Your task to perform on an android device: Open battery settings Image 0: 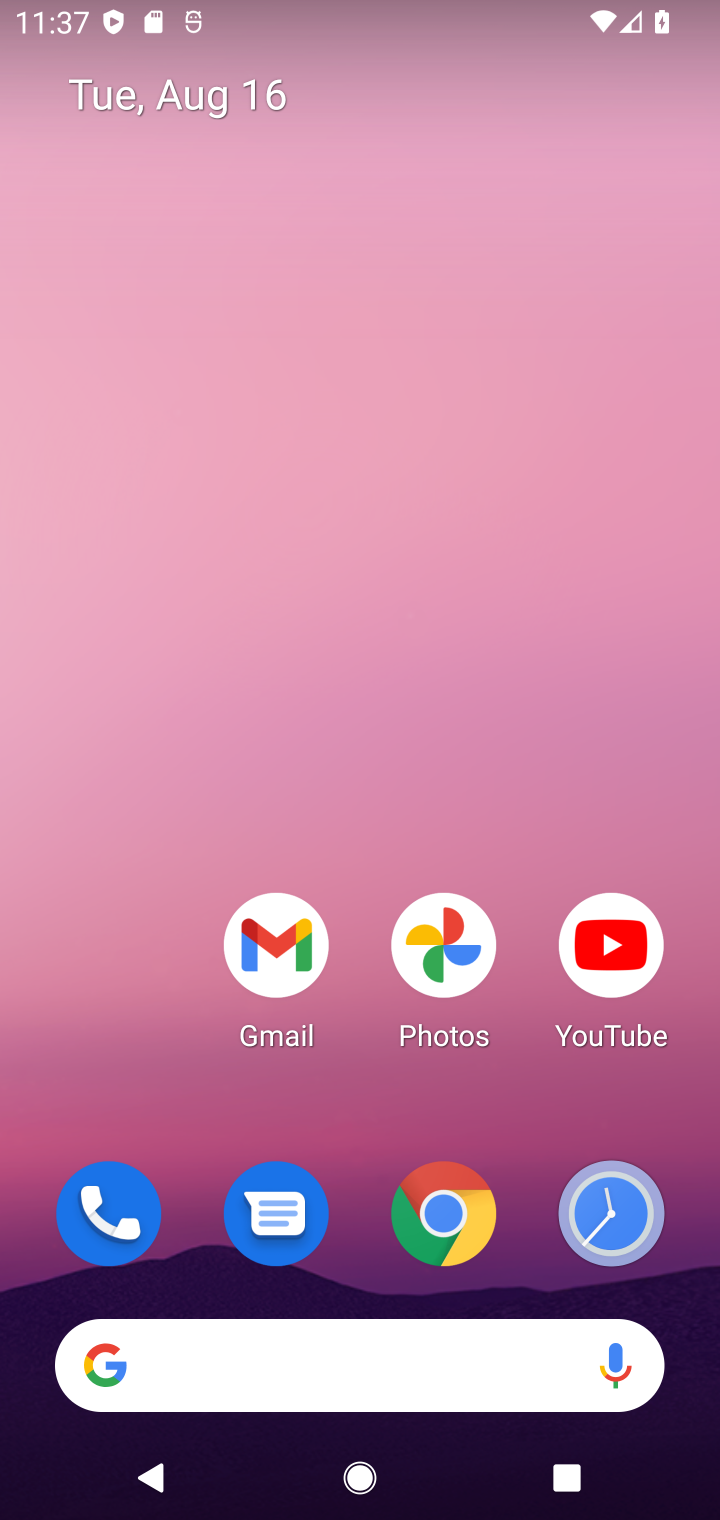
Step 0: drag from (380, 1046) to (526, 84)
Your task to perform on an android device: Open battery settings Image 1: 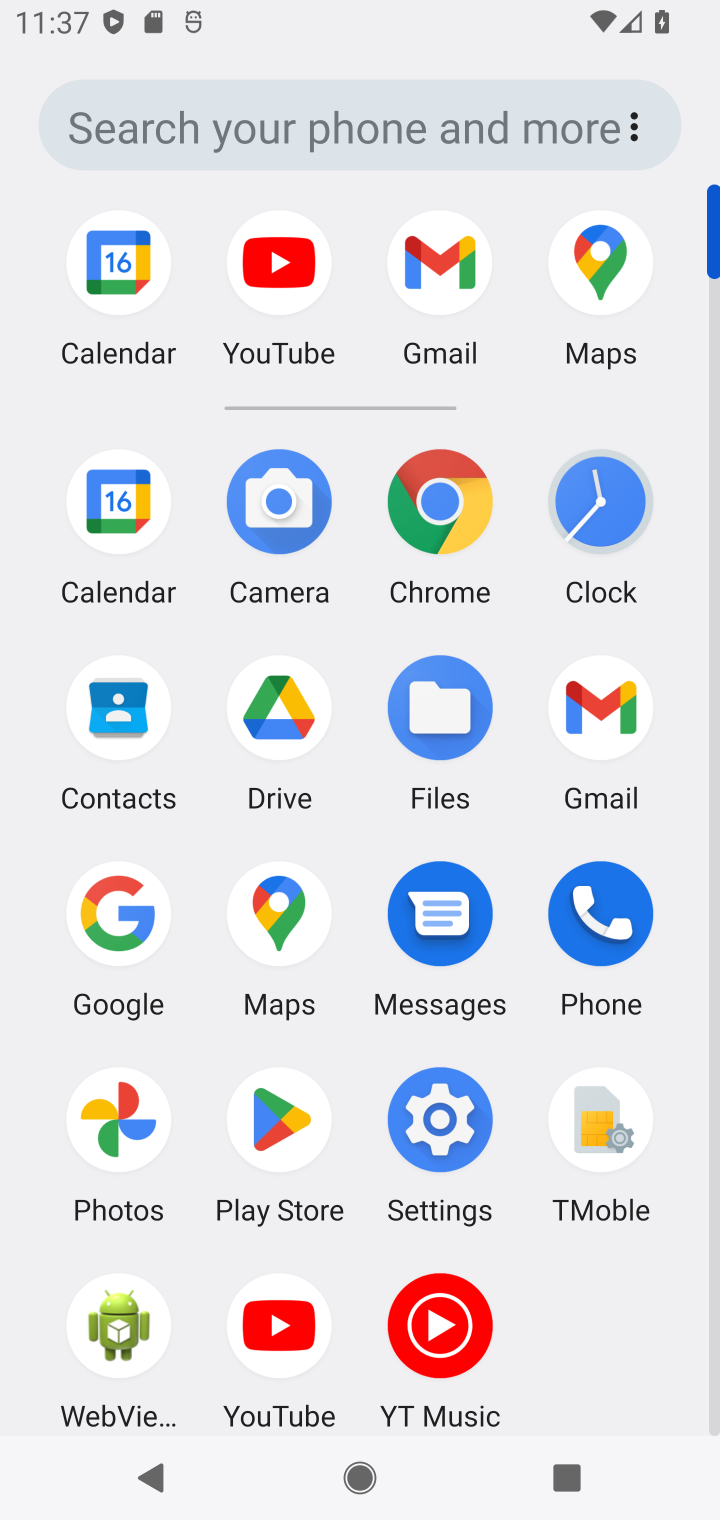
Step 1: click (447, 1117)
Your task to perform on an android device: Open battery settings Image 2: 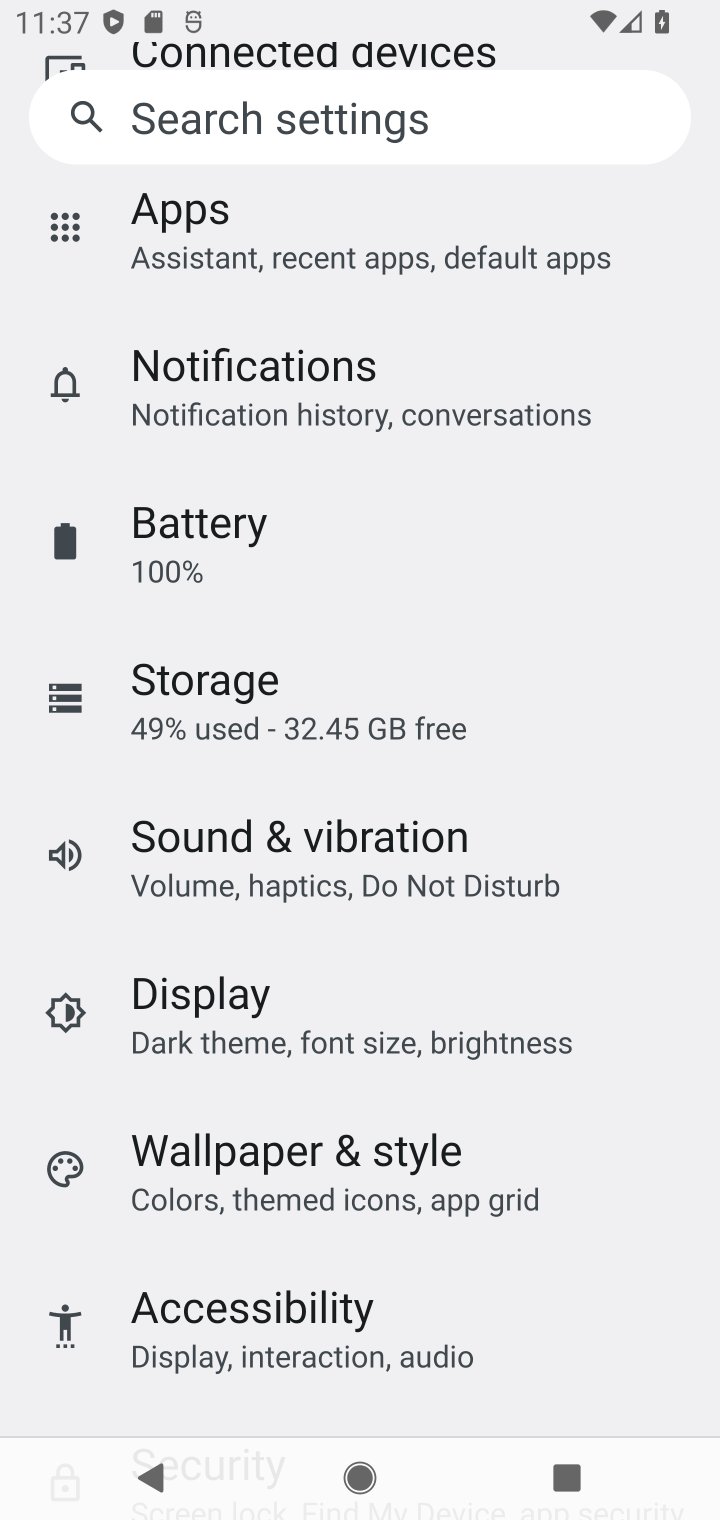
Step 2: click (239, 560)
Your task to perform on an android device: Open battery settings Image 3: 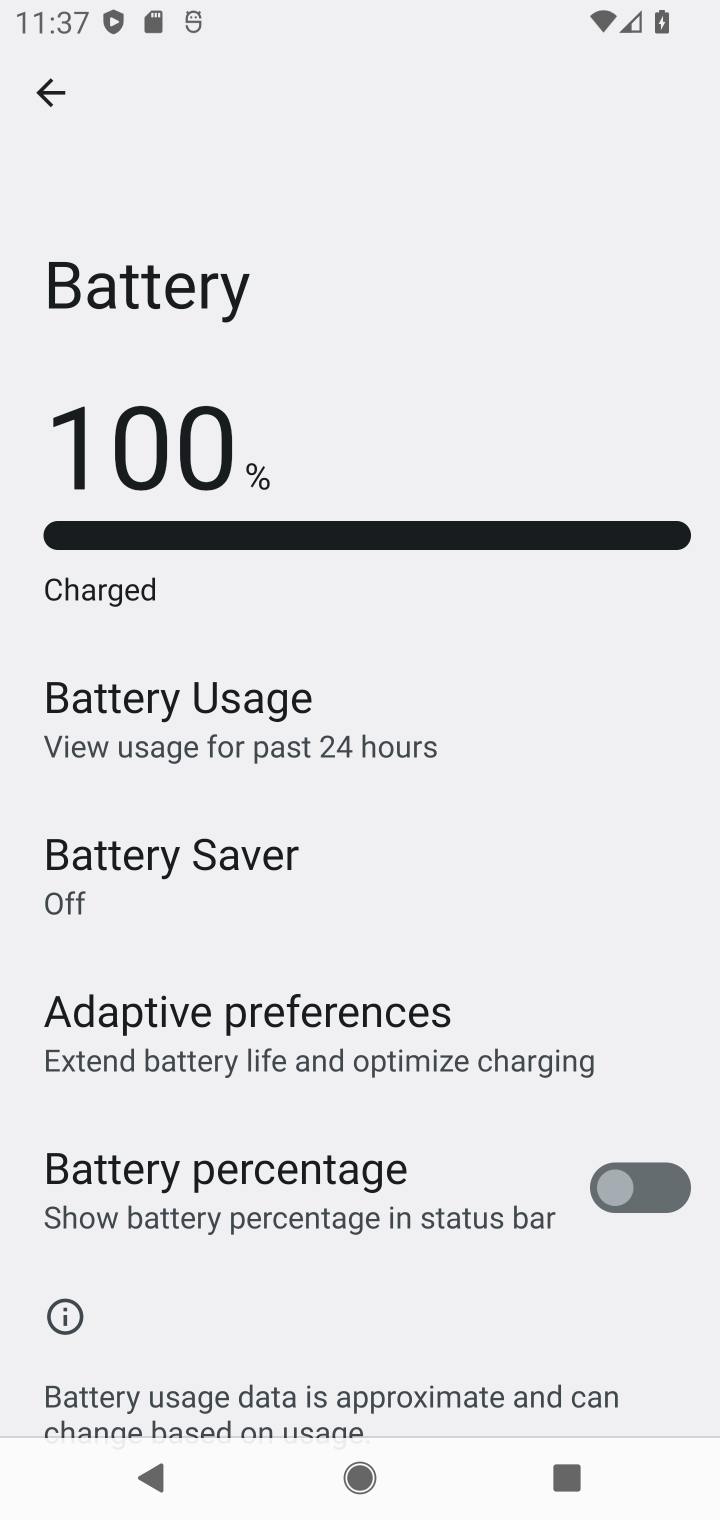
Step 3: task complete